Your task to perform on an android device: Open calendar and show me the fourth week of next month Image 0: 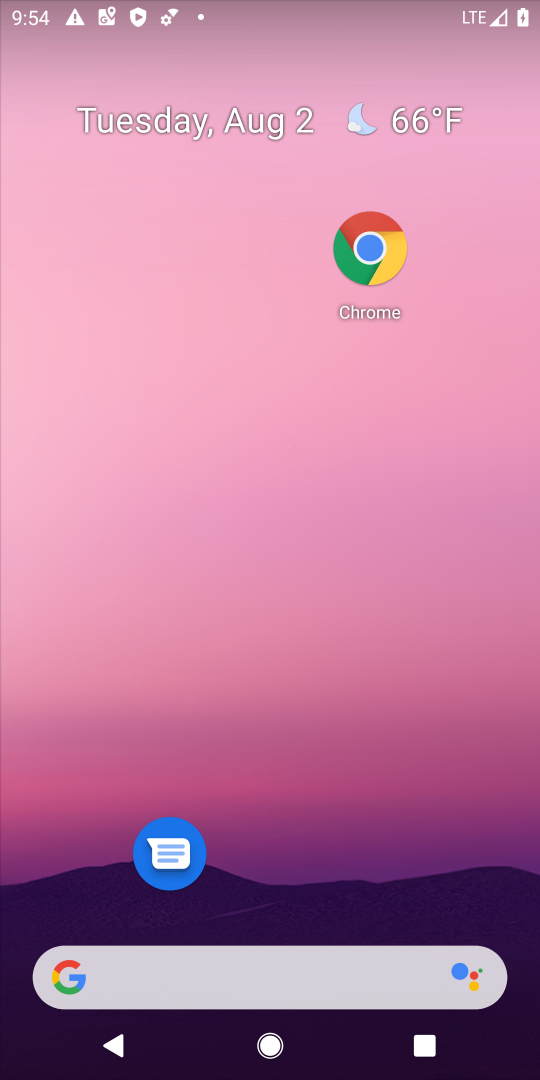
Step 0: drag from (262, 874) to (208, 29)
Your task to perform on an android device: Open calendar and show me the fourth week of next month Image 1: 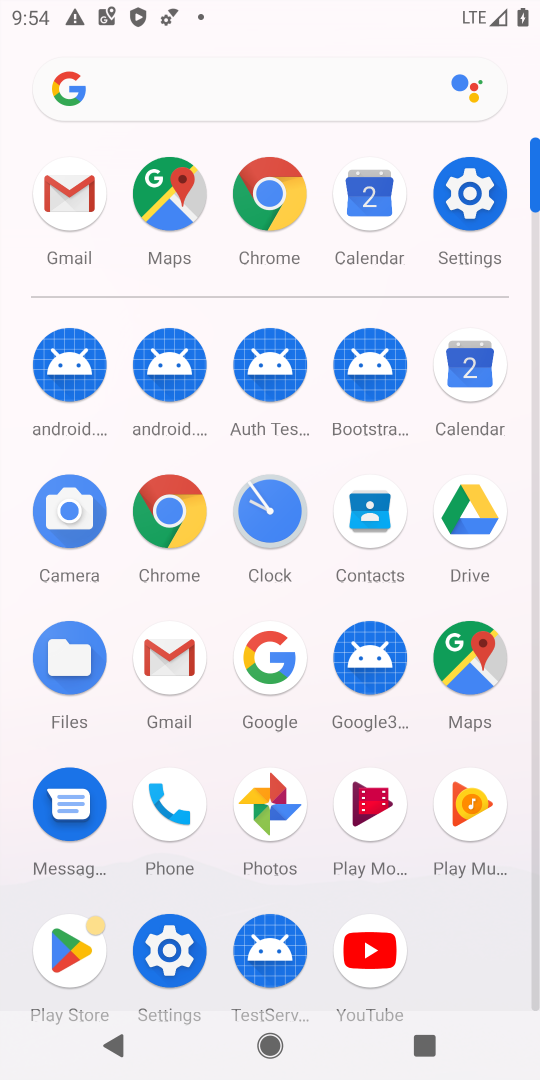
Step 1: click (473, 375)
Your task to perform on an android device: Open calendar and show me the fourth week of next month Image 2: 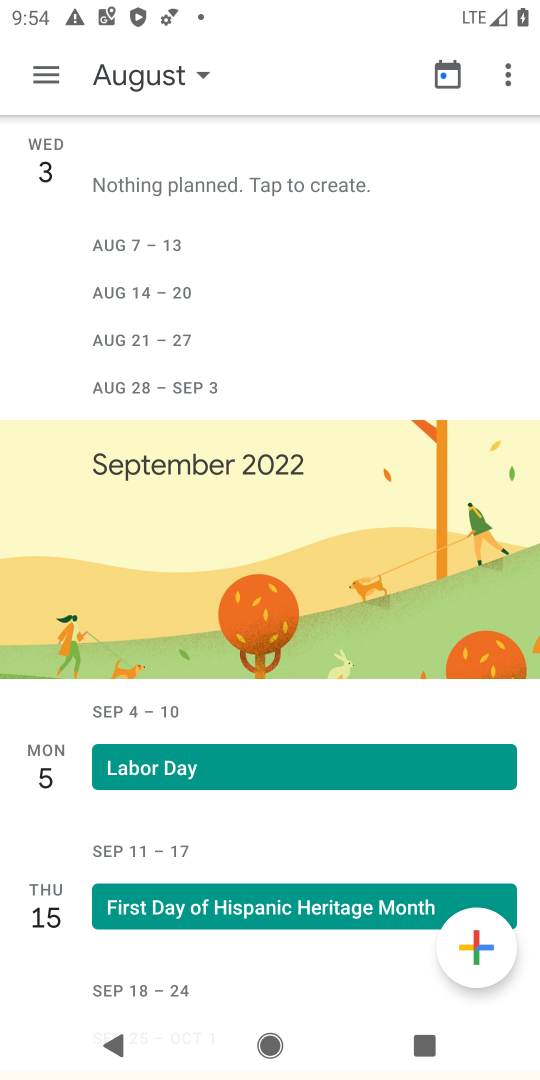
Step 2: click (47, 78)
Your task to perform on an android device: Open calendar and show me the fourth week of next month Image 3: 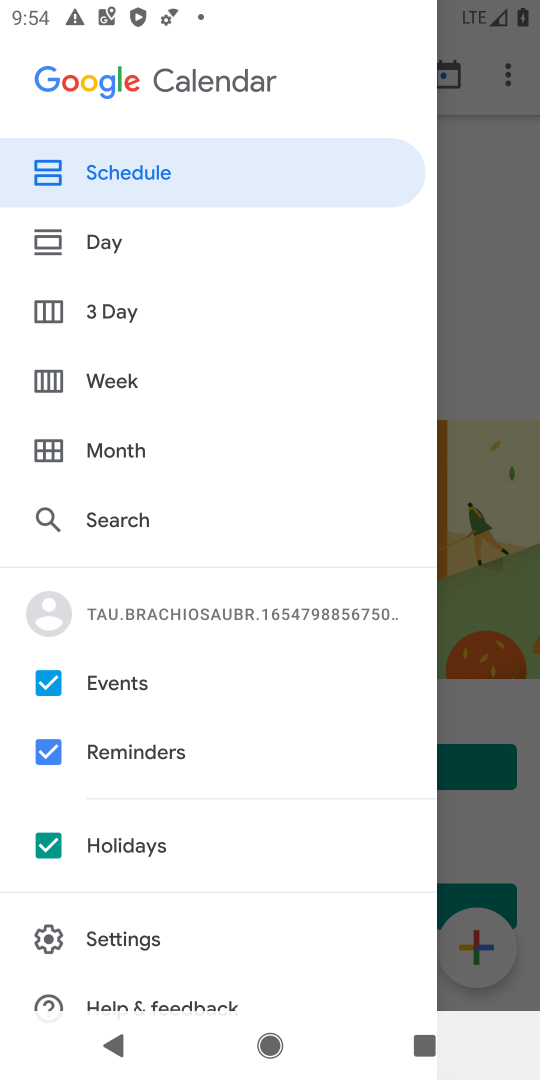
Step 3: click (128, 383)
Your task to perform on an android device: Open calendar and show me the fourth week of next month Image 4: 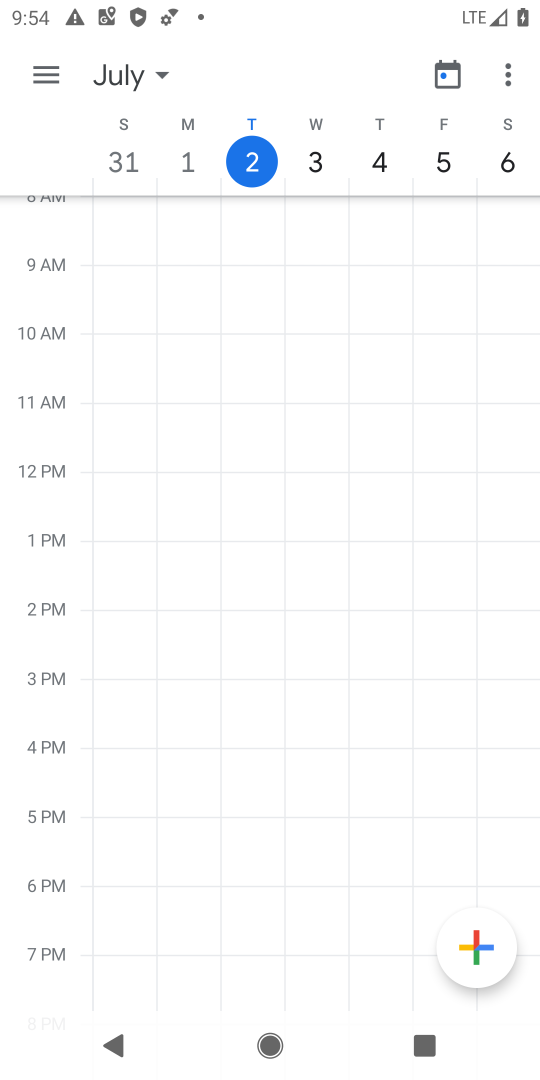
Step 4: task complete